Your task to perform on an android device: change the clock display to analog Image 0: 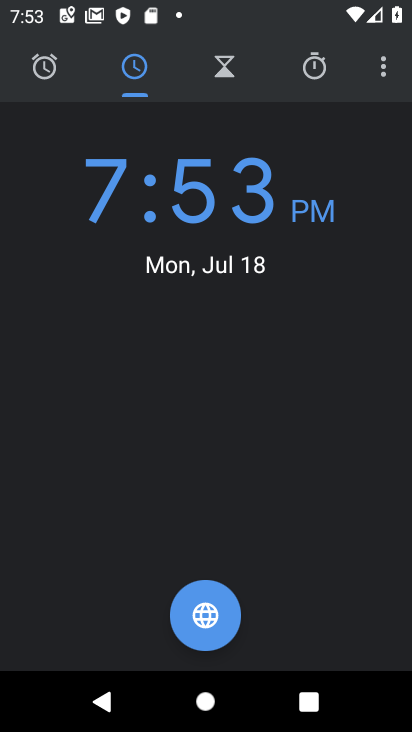
Step 0: click (389, 65)
Your task to perform on an android device: change the clock display to analog Image 1: 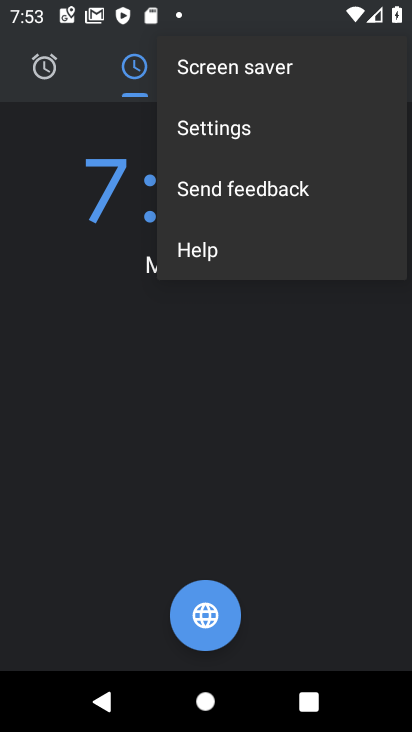
Step 1: click (302, 133)
Your task to perform on an android device: change the clock display to analog Image 2: 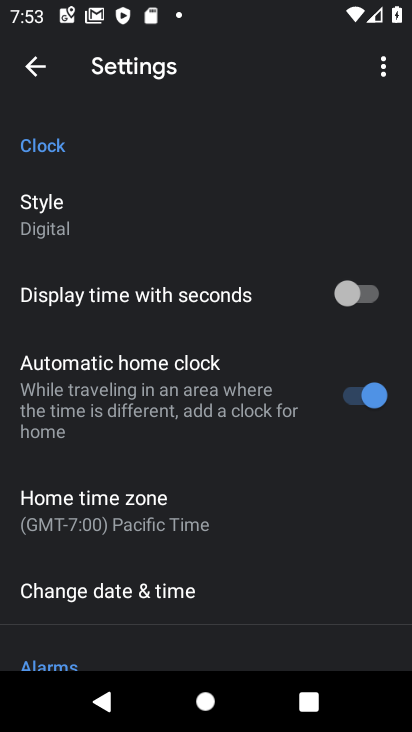
Step 2: click (57, 207)
Your task to perform on an android device: change the clock display to analog Image 3: 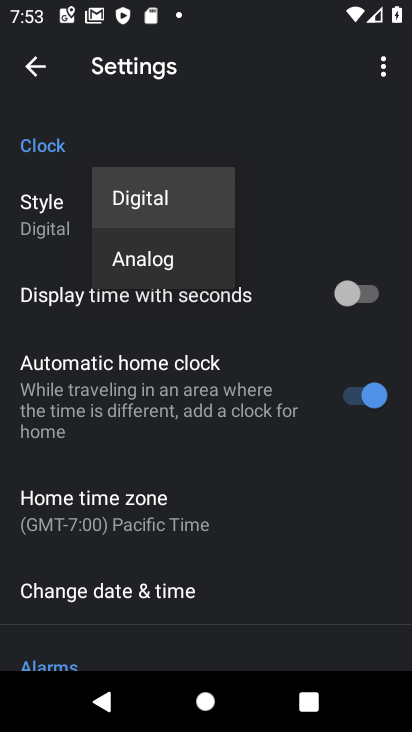
Step 3: click (130, 263)
Your task to perform on an android device: change the clock display to analog Image 4: 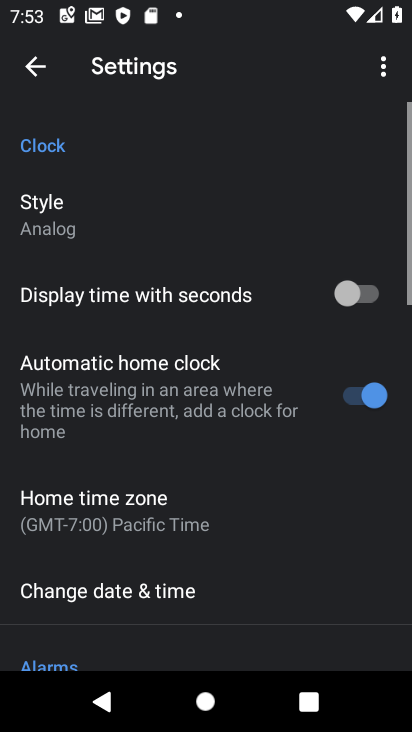
Step 4: click (50, 66)
Your task to perform on an android device: change the clock display to analog Image 5: 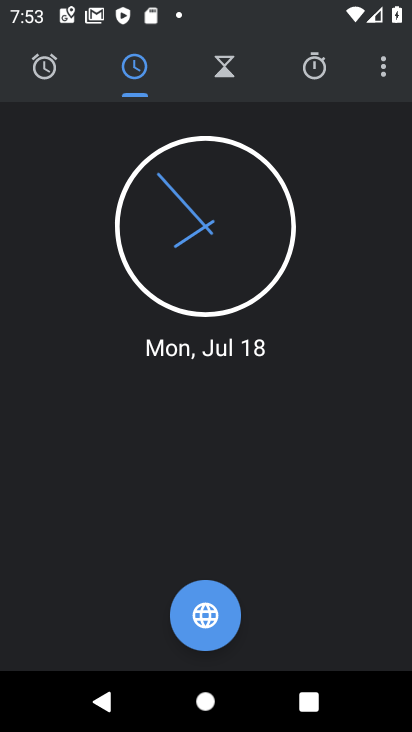
Step 5: task complete